Your task to perform on an android device: Check the news Image 0: 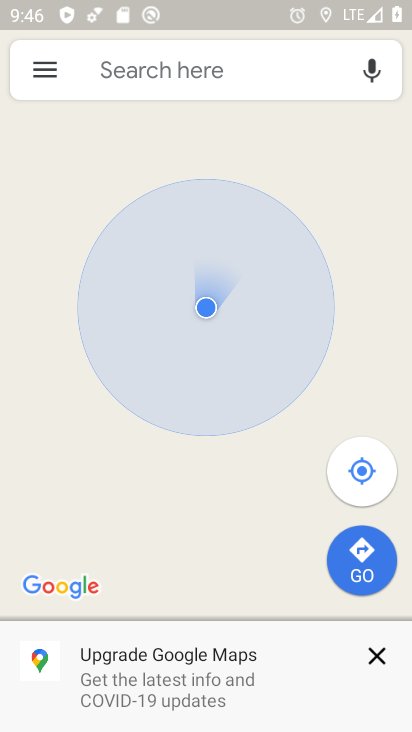
Step 0: press home button
Your task to perform on an android device: Check the news Image 1: 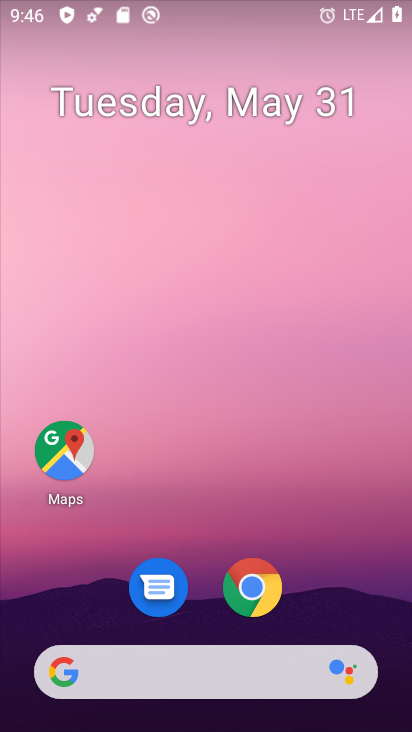
Step 1: task complete